Your task to perform on an android device: find which apps use the phone's location Image 0: 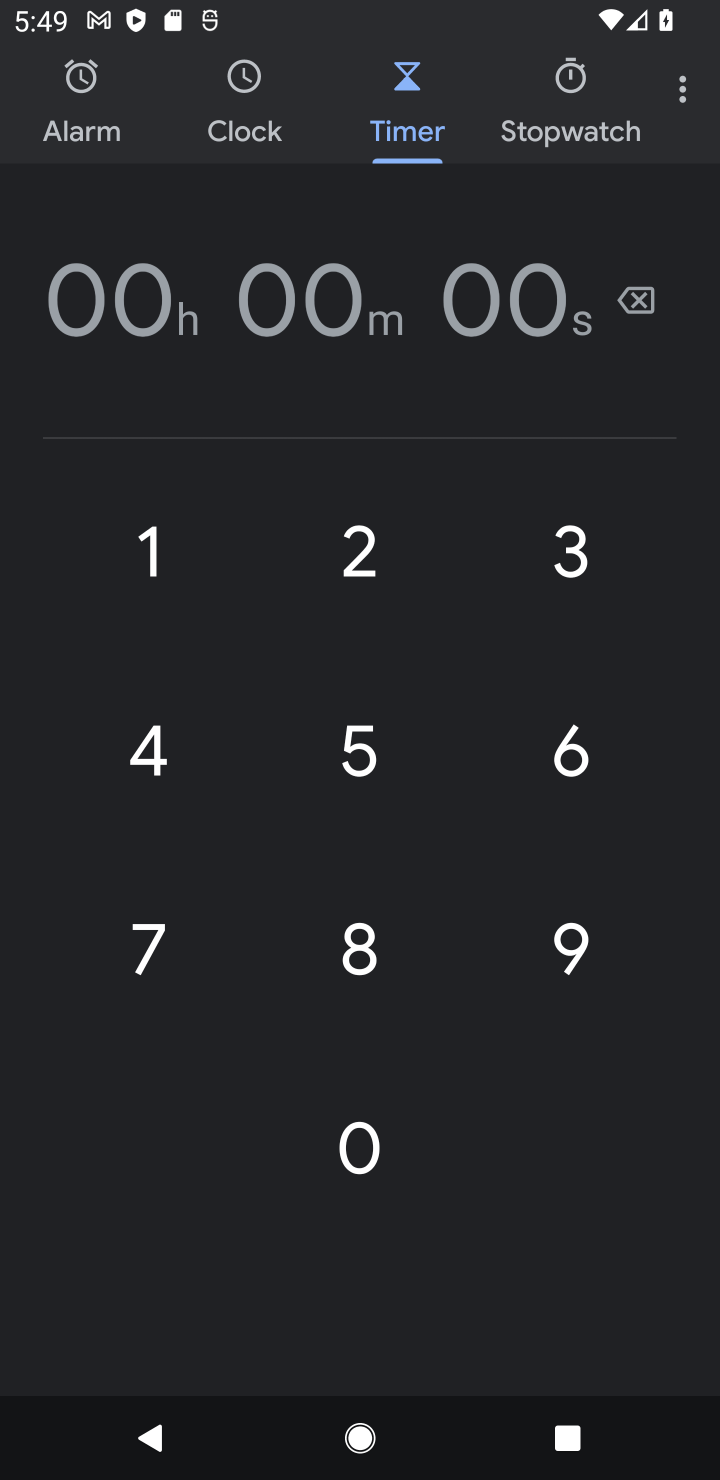
Step 0: press home button
Your task to perform on an android device: find which apps use the phone's location Image 1: 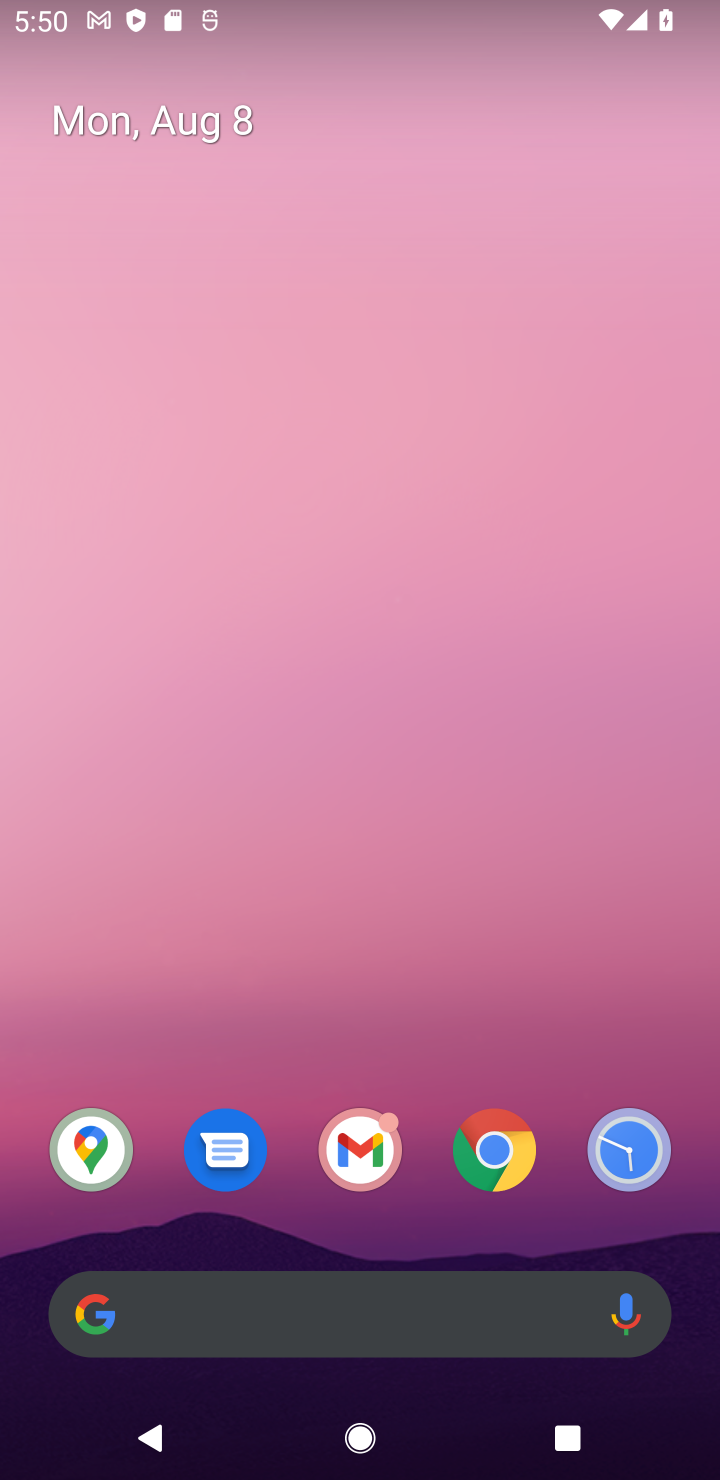
Step 1: task complete